Your task to perform on an android device: choose inbox layout in the gmail app Image 0: 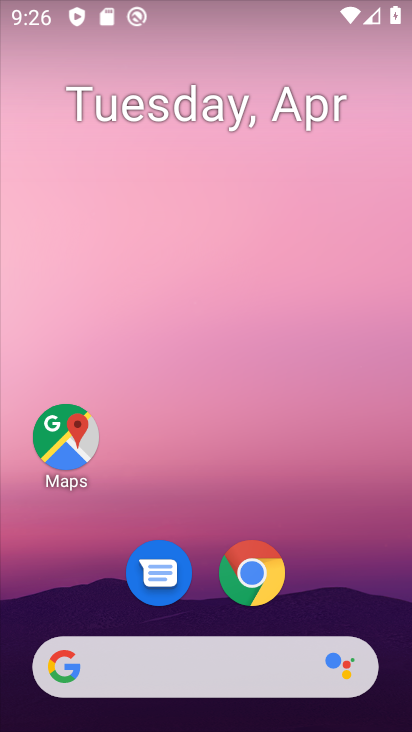
Step 0: drag from (378, 578) to (384, 9)
Your task to perform on an android device: choose inbox layout in the gmail app Image 1: 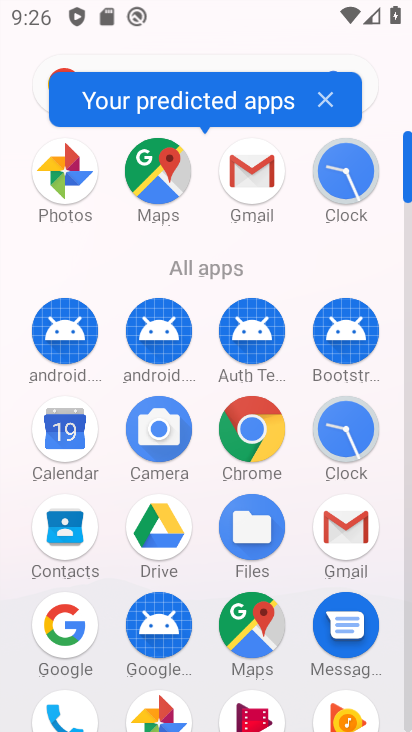
Step 1: click (245, 188)
Your task to perform on an android device: choose inbox layout in the gmail app Image 2: 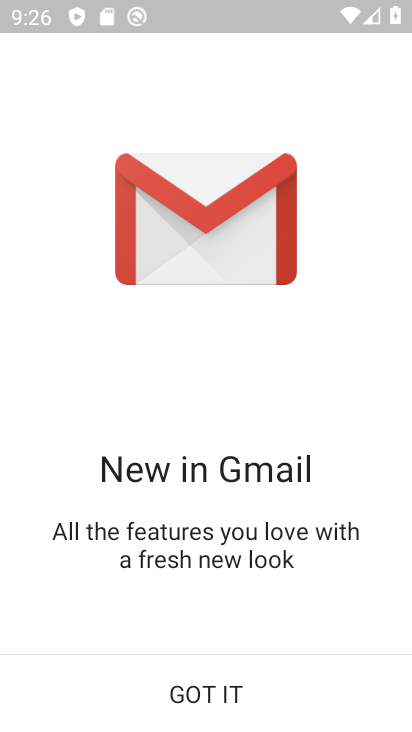
Step 2: click (200, 695)
Your task to perform on an android device: choose inbox layout in the gmail app Image 3: 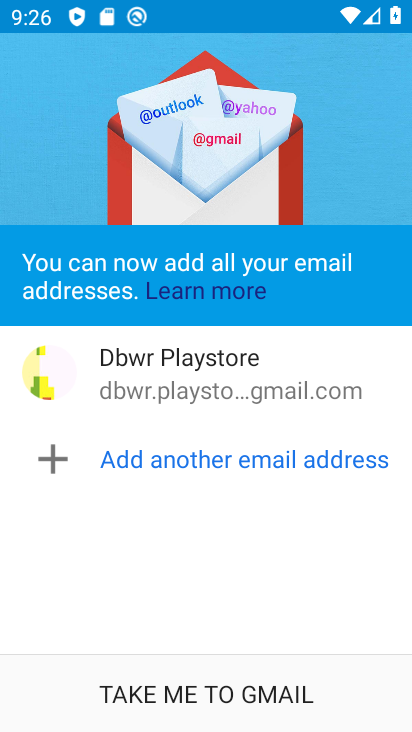
Step 3: click (256, 686)
Your task to perform on an android device: choose inbox layout in the gmail app Image 4: 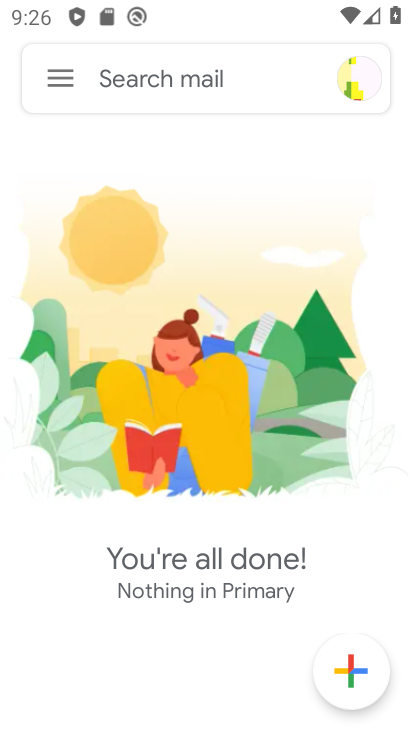
Step 4: click (68, 78)
Your task to perform on an android device: choose inbox layout in the gmail app Image 5: 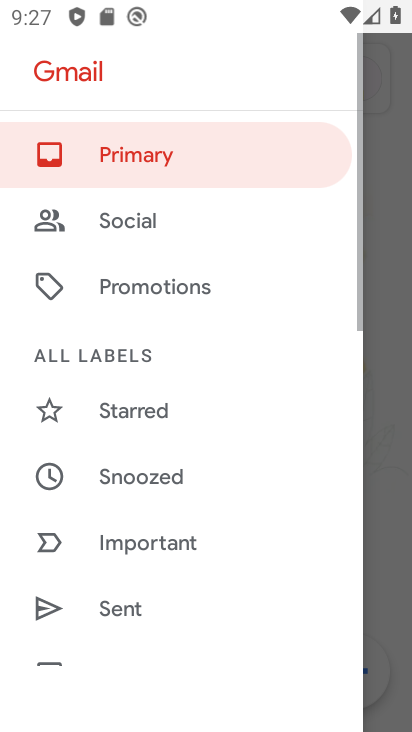
Step 5: drag from (250, 510) to (247, 131)
Your task to perform on an android device: choose inbox layout in the gmail app Image 6: 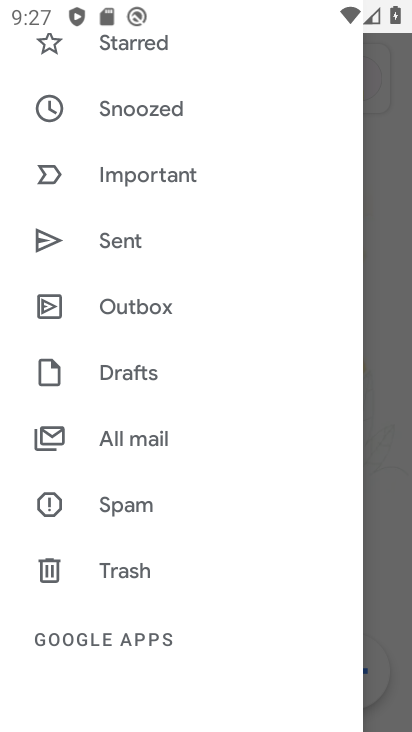
Step 6: drag from (254, 519) to (242, 178)
Your task to perform on an android device: choose inbox layout in the gmail app Image 7: 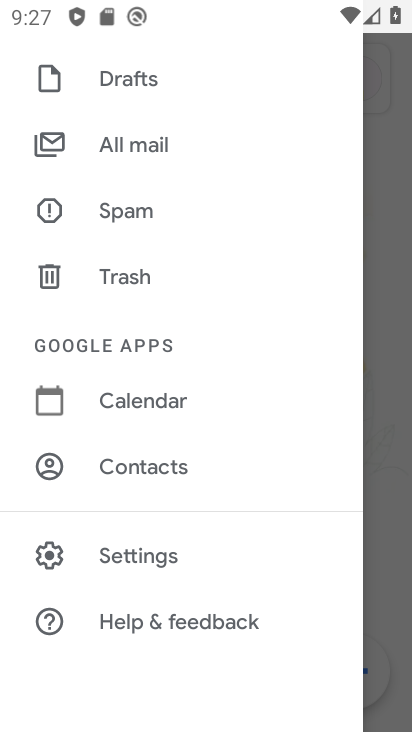
Step 7: click (114, 556)
Your task to perform on an android device: choose inbox layout in the gmail app Image 8: 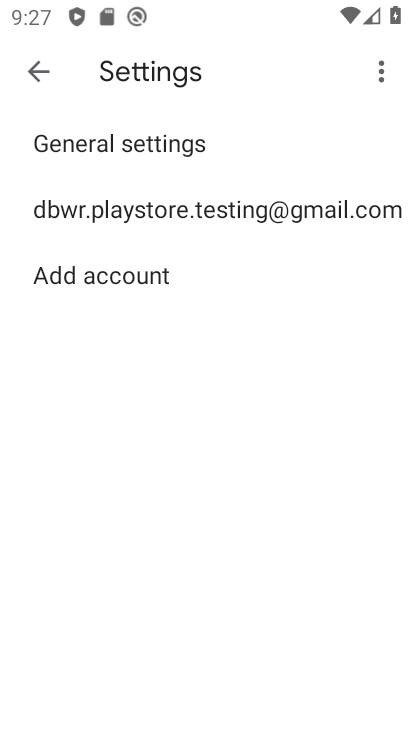
Step 8: click (132, 214)
Your task to perform on an android device: choose inbox layout in the gmail app Image 9: 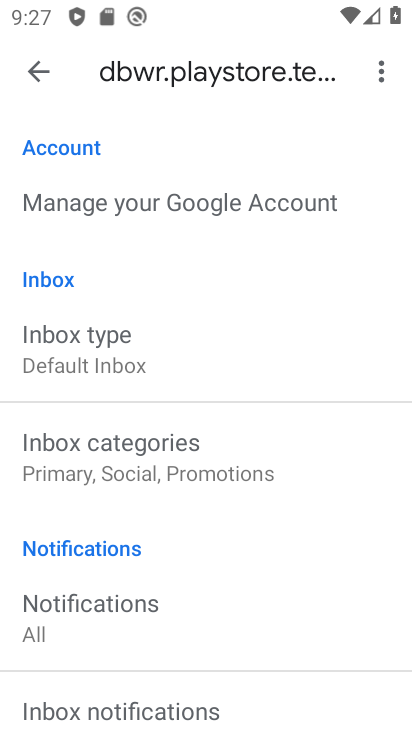
Step 9: click (87, 366)
Your task to perform on an android device: choose inbox layout in the gmail app Image 10: 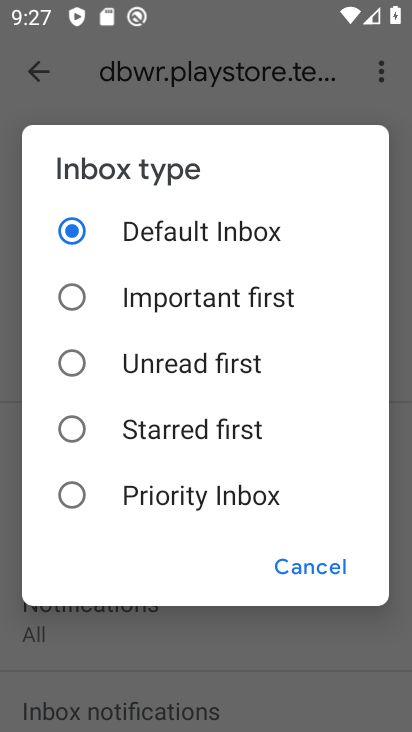
Step 10: click (68, 425)
Your task to perform on an android device: choose inbox layout in the gmail app Image 11: 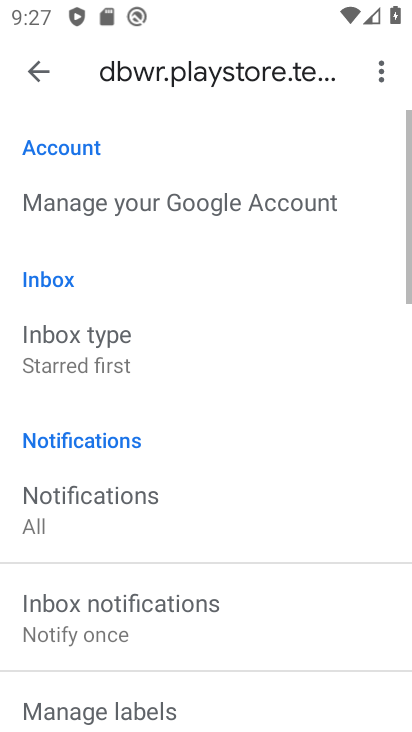
Step 11: task complete